Your task to perform on an android device: find which apps use the phone's location Image 0: 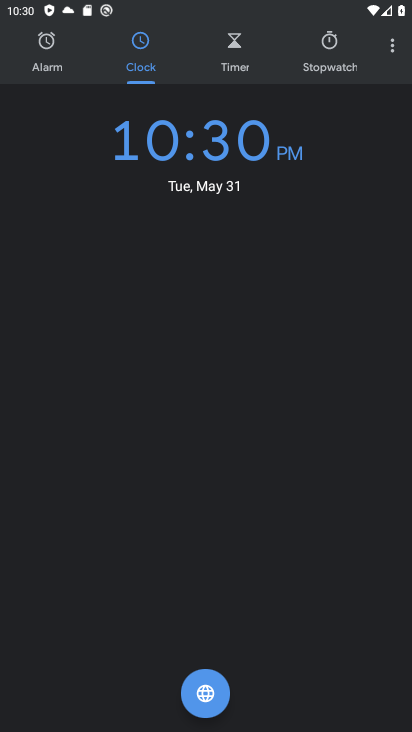
Step 0: press home button
Your task to perform on an android device: find which apps use the phone's location Image 1: 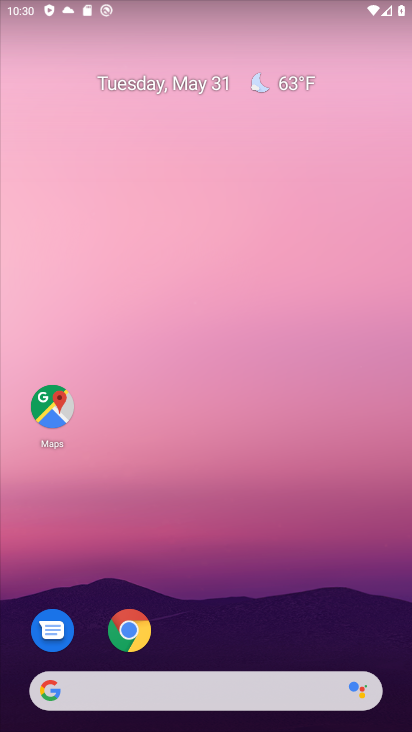
Step 1: drag from (233, 652) to (193, 11)
Your task to perform on an android device: find which apps use the phone's location Image 2: 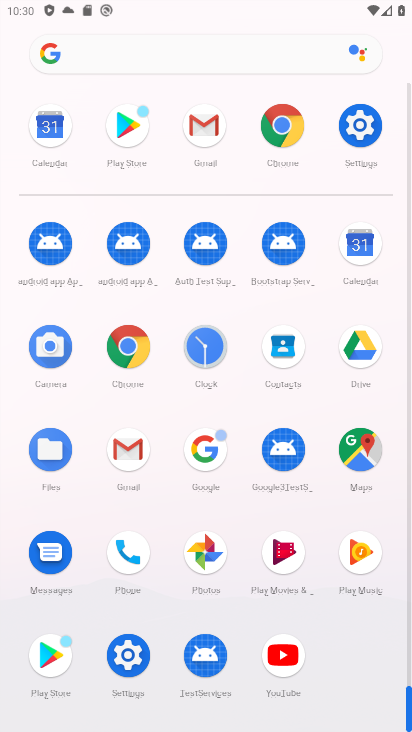
Step 2: click (367, 129)
Your task to perform on an android device: find which apps use the phone's location Image 3: 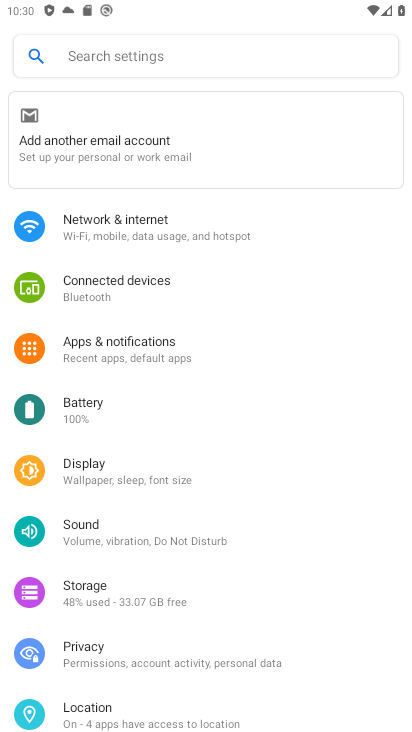
Step 3: click (85, 715)
Your task to perform on an android device: find which apps use the phone's location Image 4: 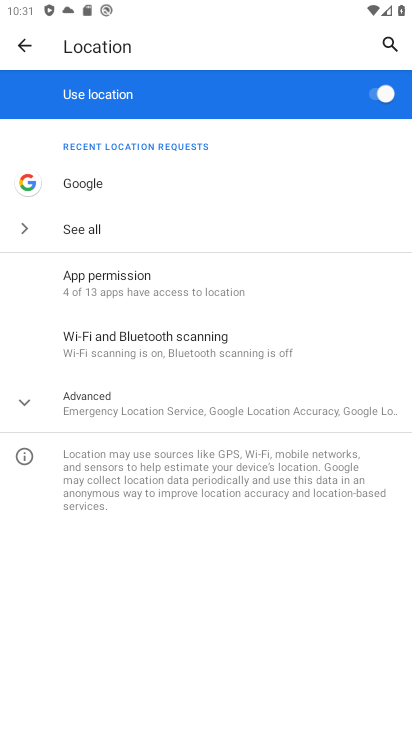
Step 4: click (97, 279)
Your task to perform on an android device: find which apps use the phone's location Image 5: 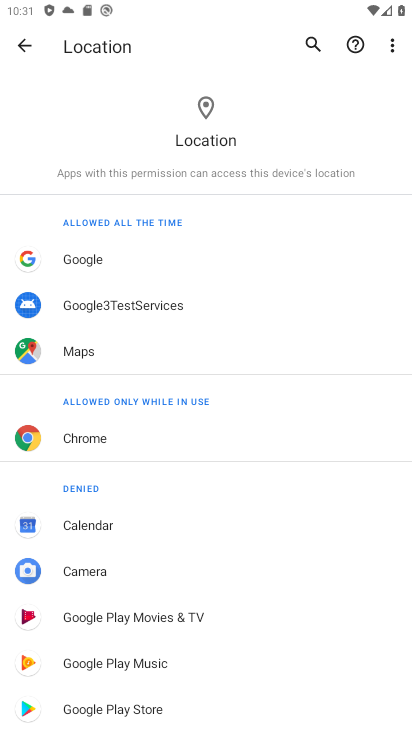
Step 5: task complete